Your task to perform on an android device: Go to Yahoo.com Image 0: 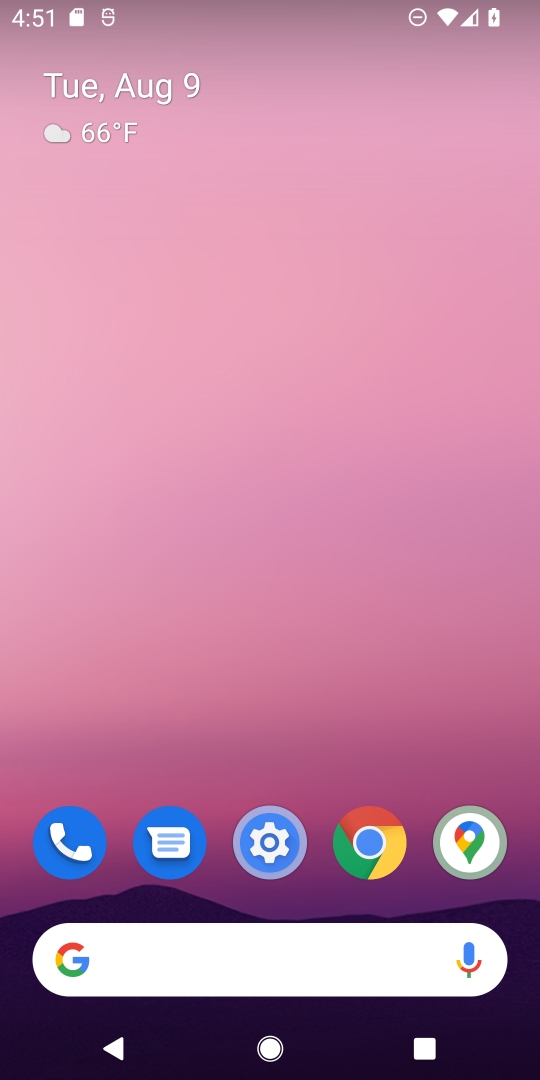
Step 0: drag from (223, 965) to (389, 1)
Your task to perform on an android device: Go to Yahoo.com Image 1: 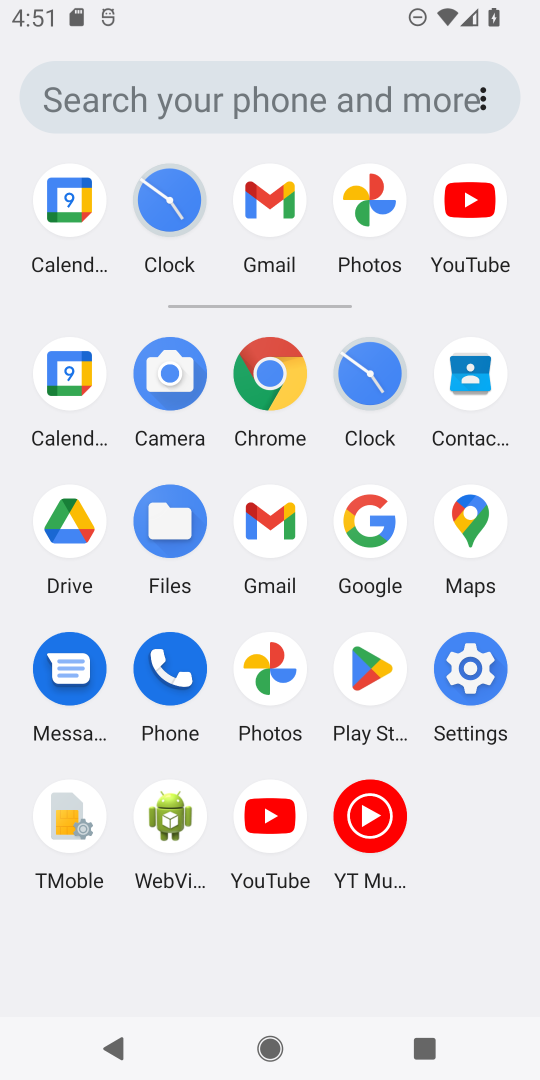
Step 1: drag from (288, 232) to (475, 411)
Your task to perform on an android device: Go to Yahoo.com Image 2: 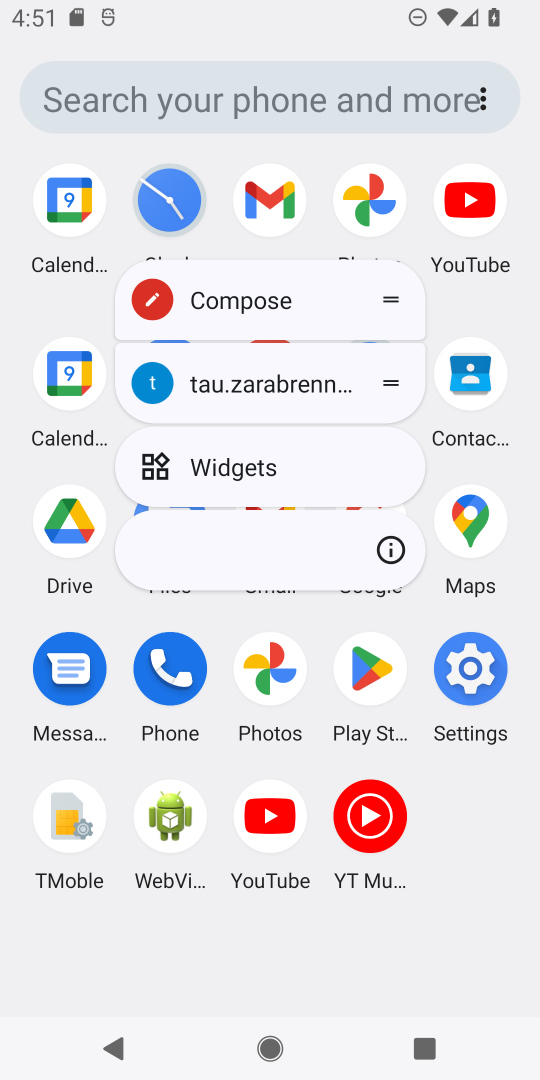
Step 2: click (493, 979)
Your task to perform on an android device: Go to Yahoo.com Image 3: 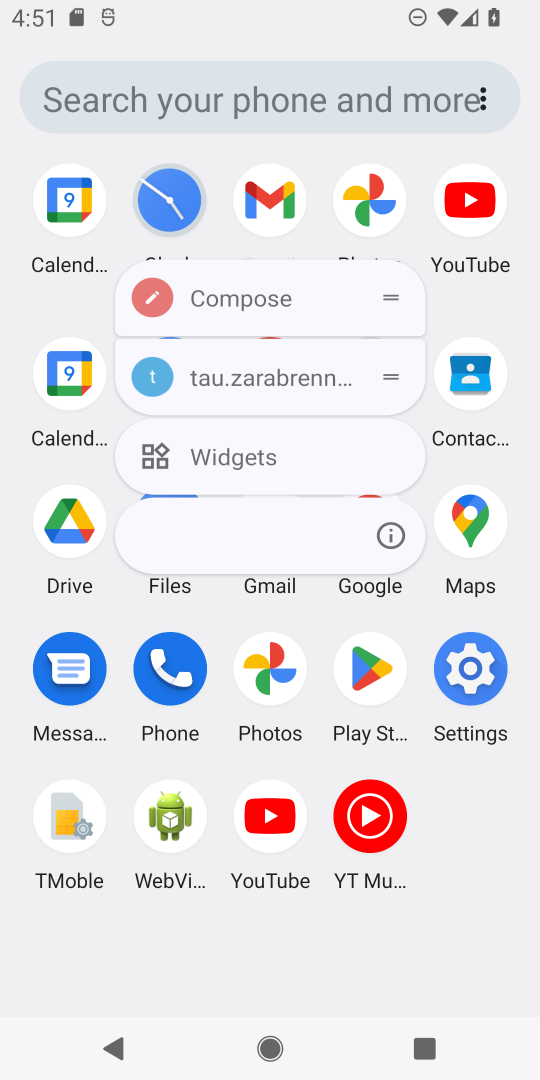
Step 3: click (493, 979)
Your task to perform on an android device: Go to Yahoo.com Image 4: 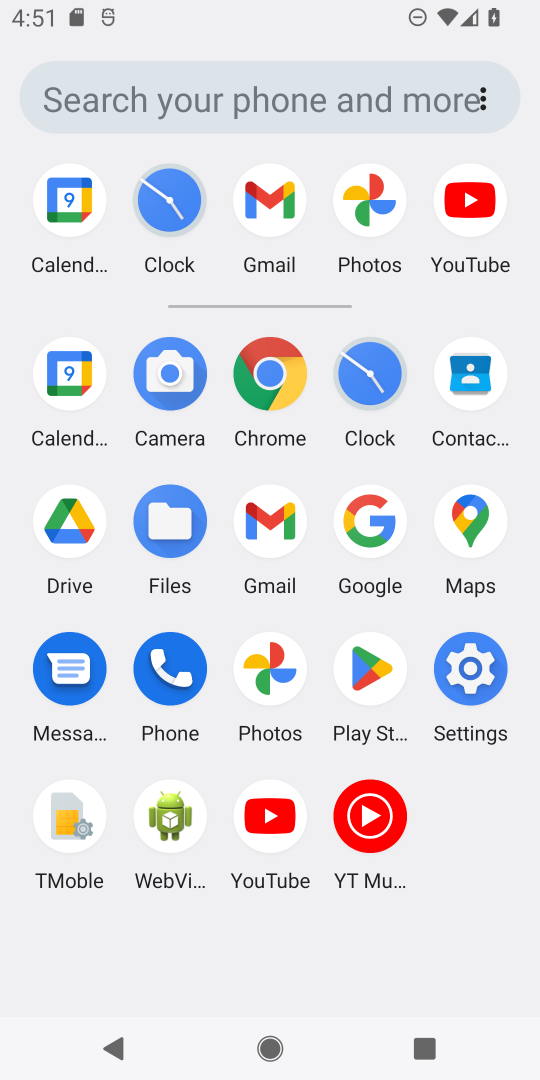
Step 4: click (287, 392)
Your task to perform on an android device: Go to Yahoo.com Image 5: 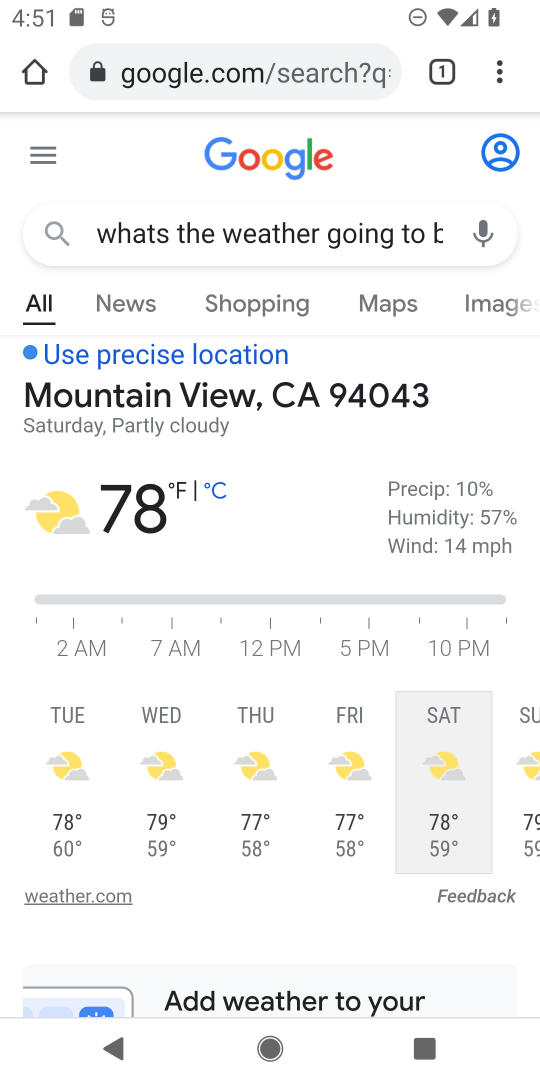
Step 5: click (499, 68)
Your task to perform on an android device: Go to Yahoo.com Image 6: 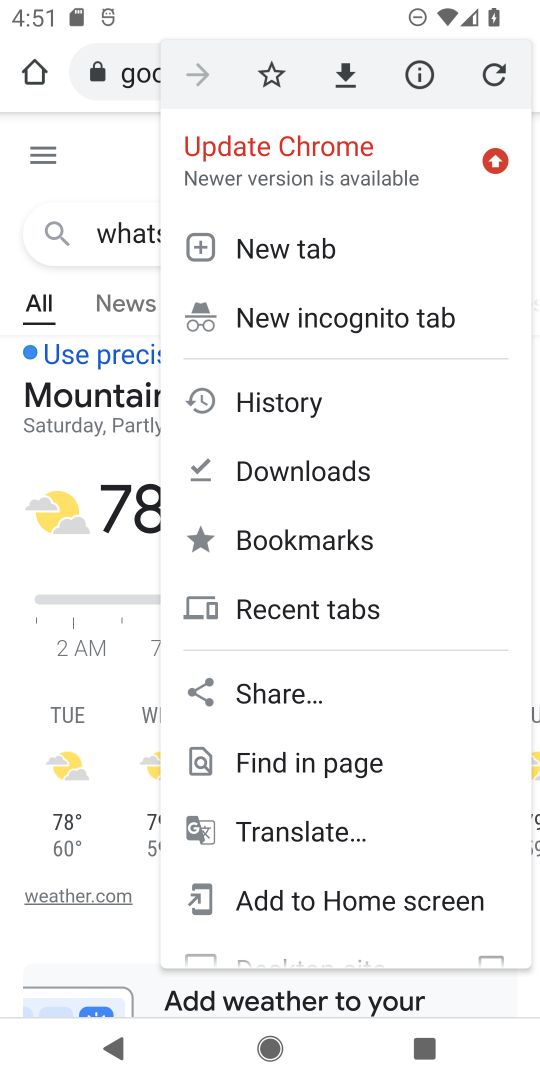
Step 6: click (291, 253)
Your task to perform on an android device: Go to Yahoo.com Image 7: 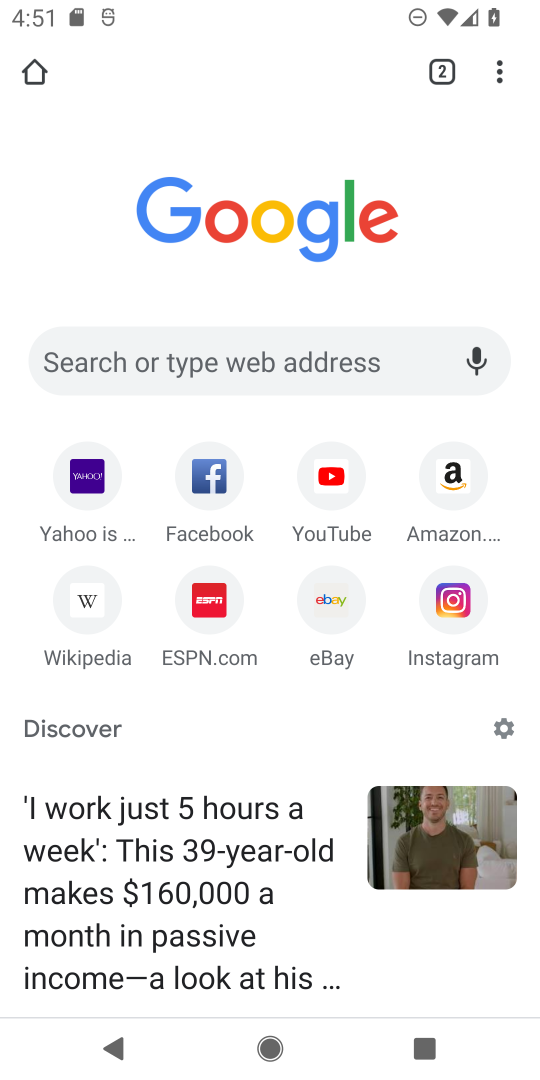
Step 7: click (79, 478)
Your task to perform on an android device: Go to Yahoo.com Image 8: 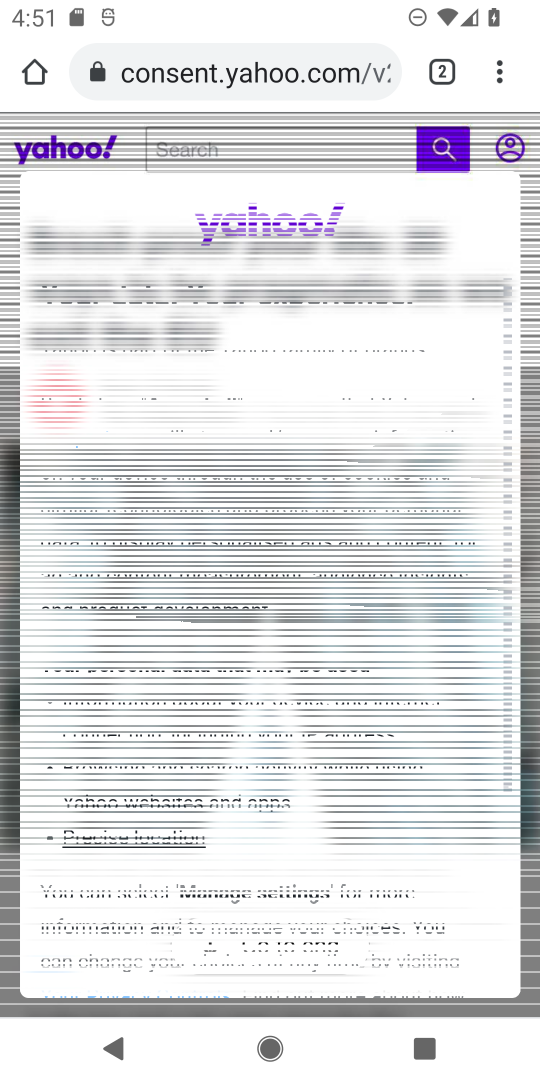
Step 8: task complete